Your task to perform on an android device: Open my contact list Image 0: 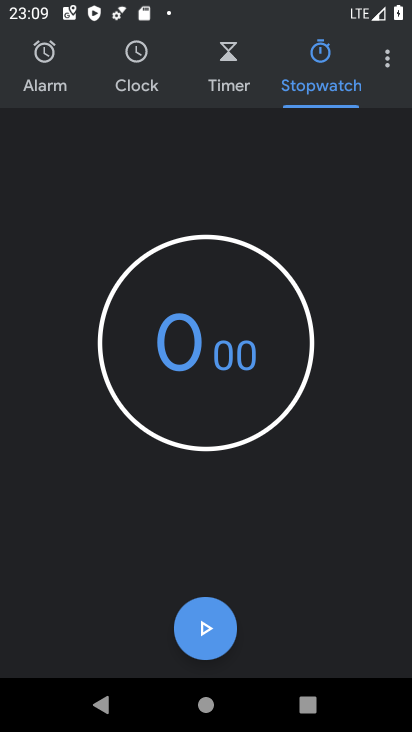
Step 0: drag from (286, 597) to (344, 153)
Your task to perform on an android device: Open my contact list Image 1: 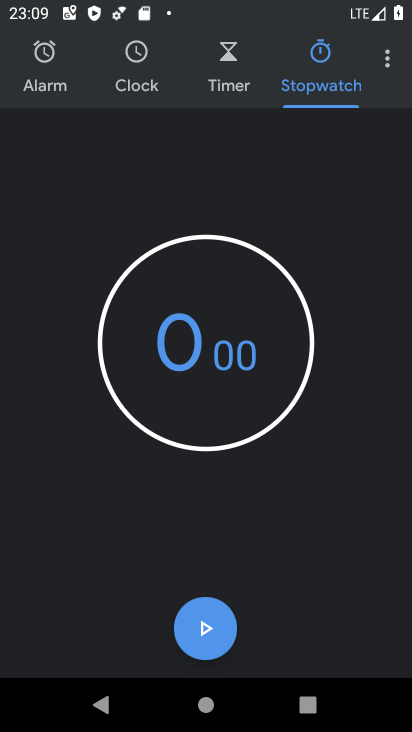
Step 1: press home button
Your task to perform on an android device: Open my contact list Image 2: 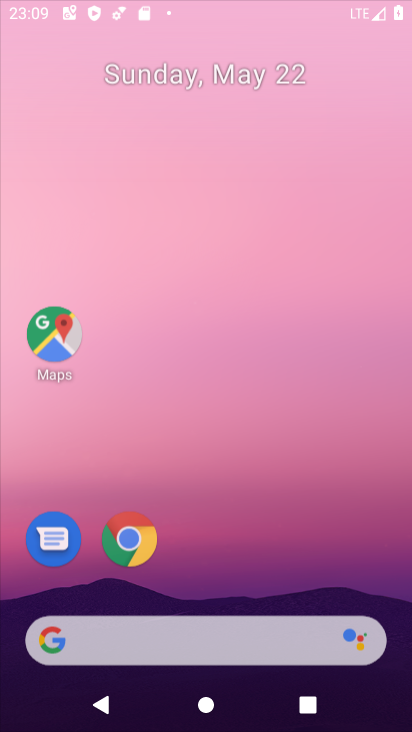
Step 2: drag from (241, 326) to (241, 47)
Your task to perform on an android device: Open my contact list Image 3: 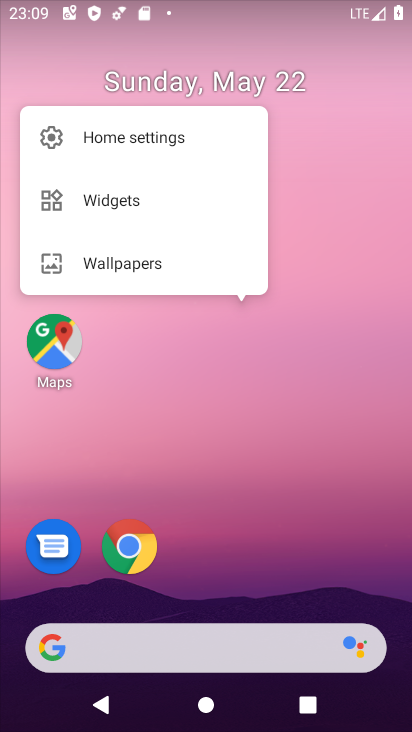
Step 3: drag from (216, 571) to (283, 86)
Your task to perform on an android device: Open my contact list Image 4: 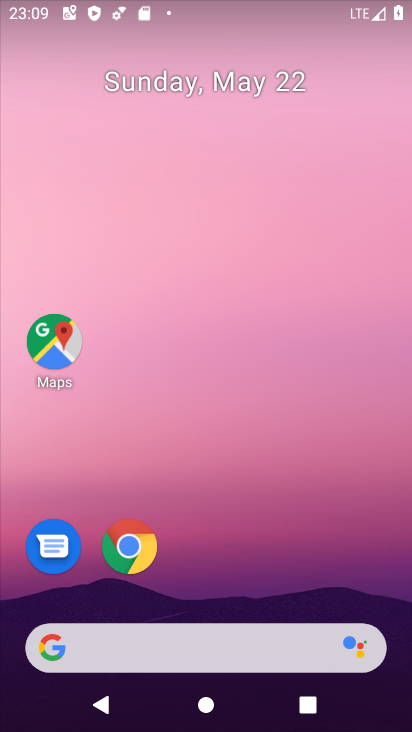
Step 4: drag from (231, 548) to (313, 63)
Your task to perform on an android device: Open my contact list Image 5: 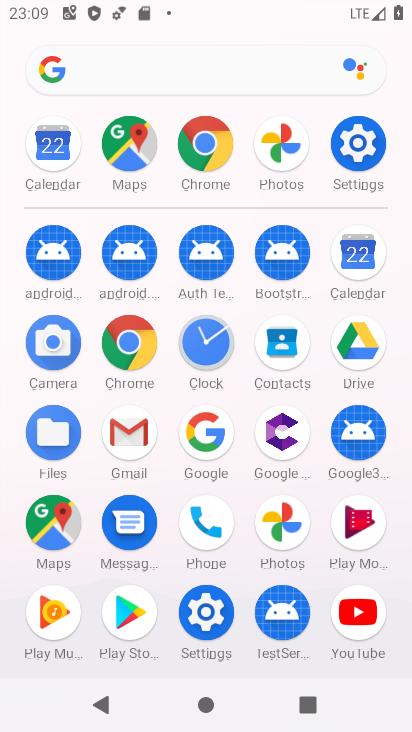
Step 5: click (276, 340)
Your task to perform on an android device: Open my contact list Image 6: 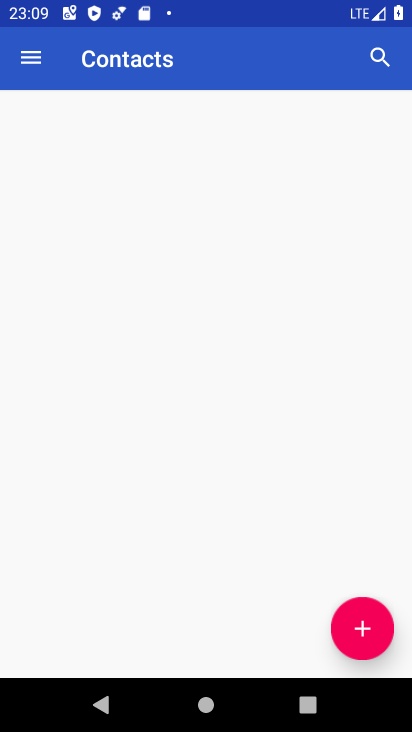
Step 6: task complete